Your task to perform on an android device: Go to internet settings Image 0: 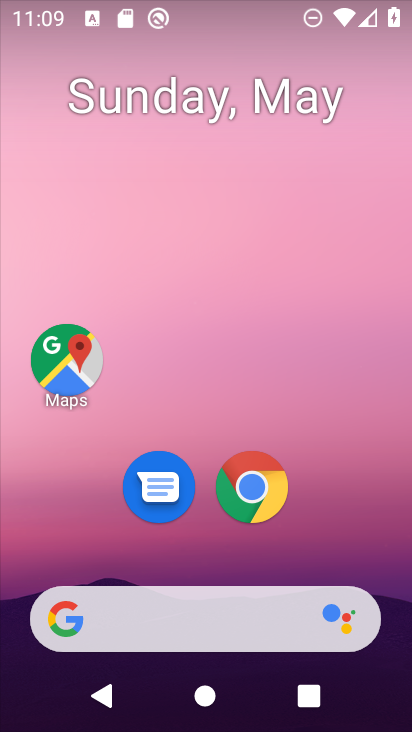
Step 0: drag from (234, 589) to (293, 131)
Your task to perform on an android device: Go to internet settings Image 1: 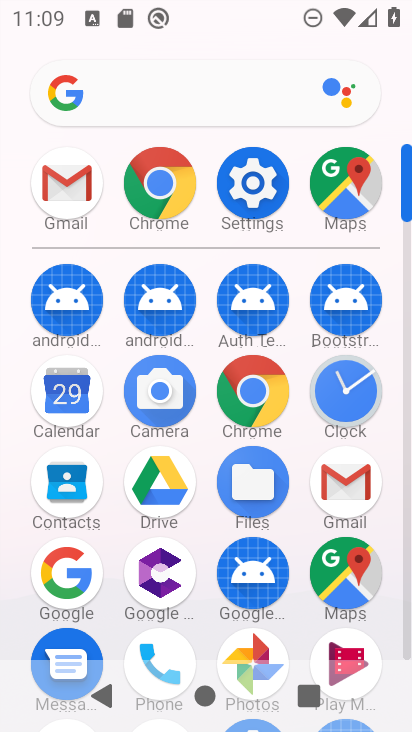
Step 1: click (261, 194)
Your task to perform on an android device: Go to internet settings Image 2: 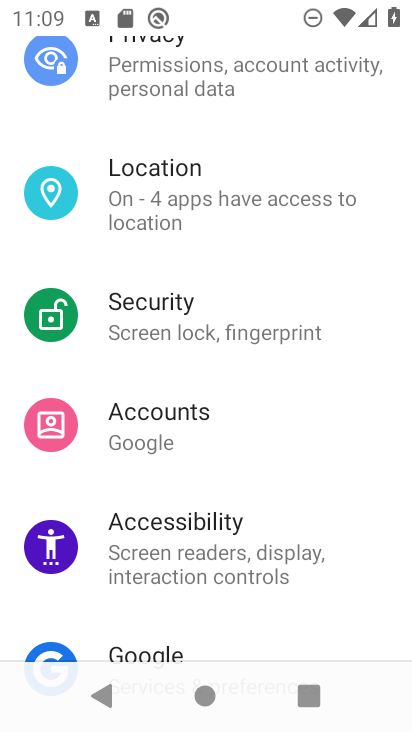
Step 2: drag from (228, 261) to (164, 651)
Your task to perform on an android device: Go to internet settings Image 3: 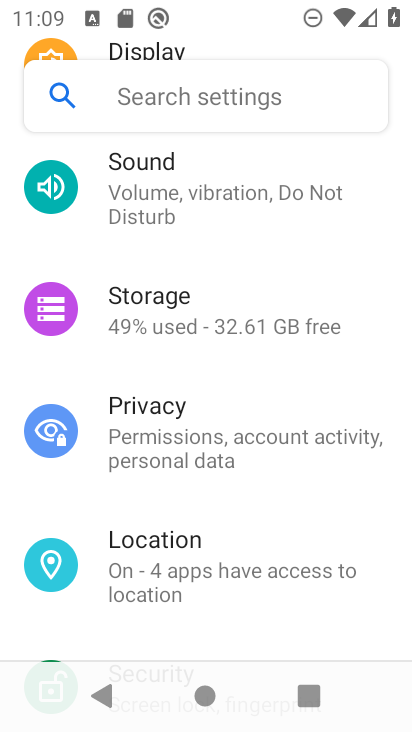
Step 3: drag from (171, 294) to (190, 710)
Your task to perform on an android device: Go to internet settings Image 4: 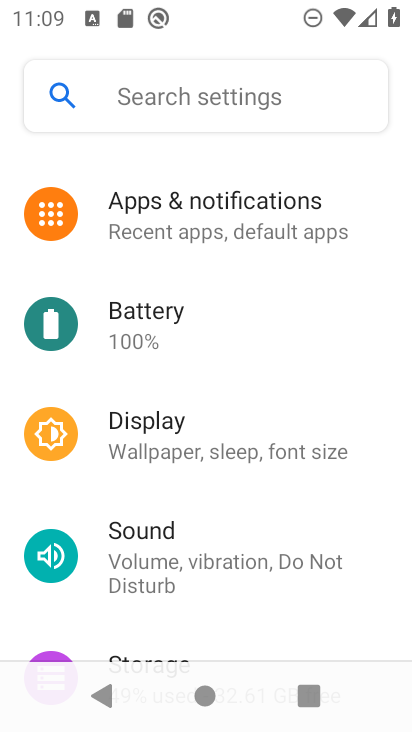
Step 4: drag from (254, 356) to (205, 677)
Your task to perform on an android device: Go to internet settings Image 5: 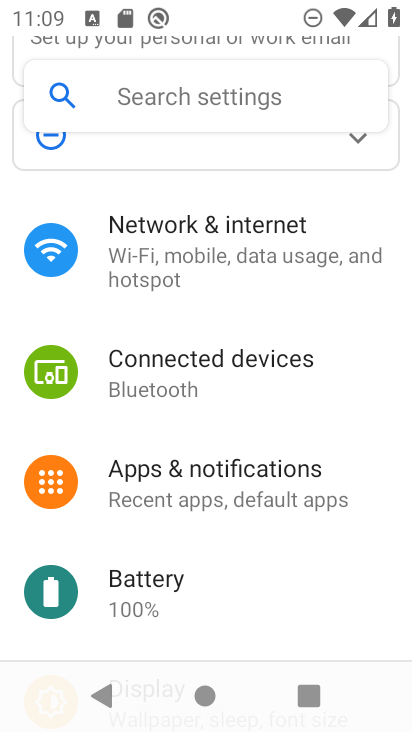
Step 5: click (234, 252)
Your task to perform on an android device: Go to internet settings Image 6: 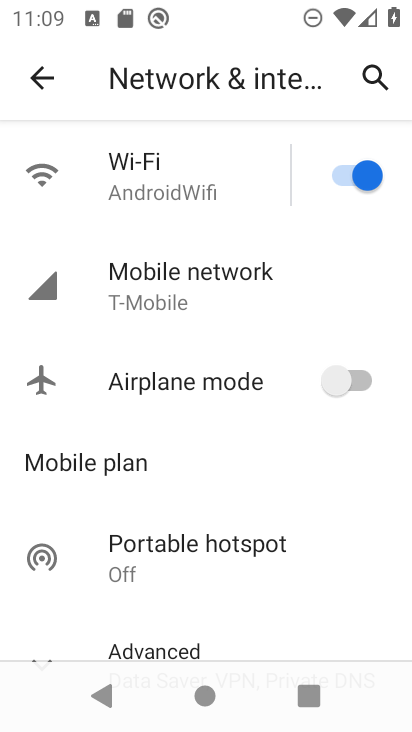
Step 6: click (211, 290)
Your task to perform on an android device: Go to internet settings Image 7: 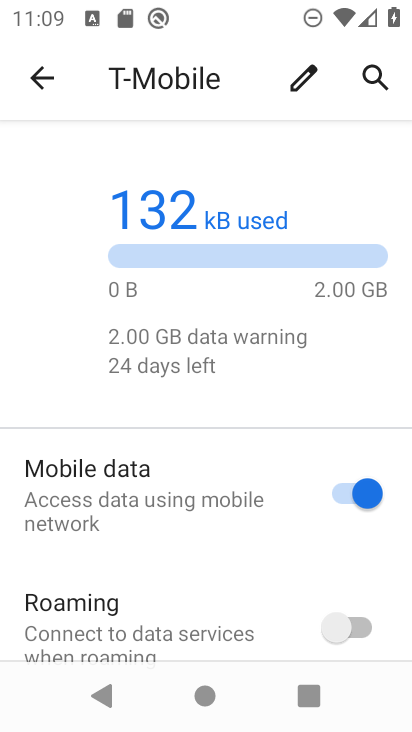
Step 7: task complete